Your task to perform on an android device: Go to calendar. Show me events next week Image 0: 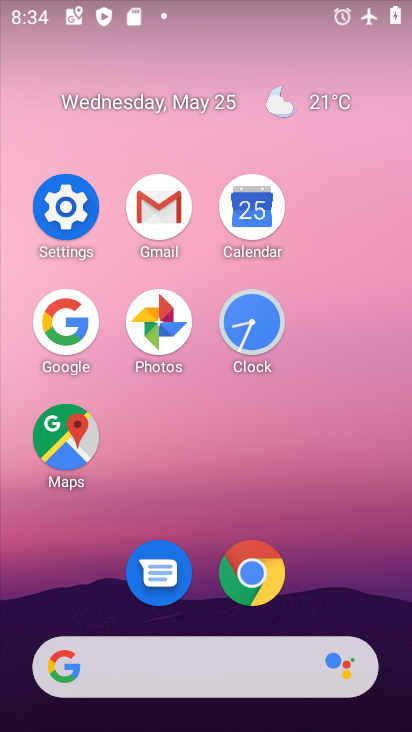
Step 0: click (261, 194)
Your task to perform on an android device: Go to calendar. Show me events next week Image 1: 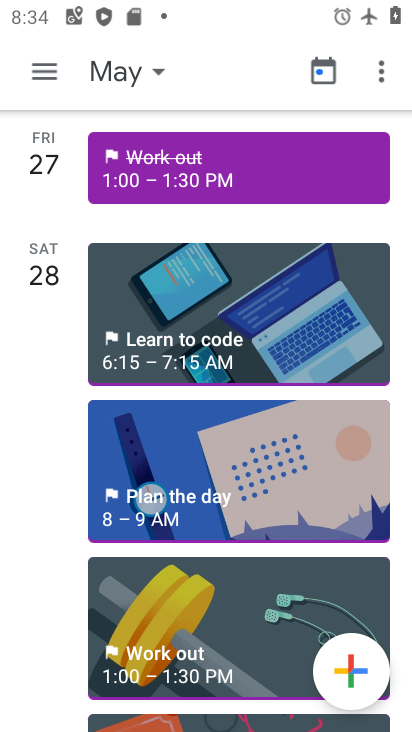
Step 1: click (63, 76)
Your task to perform on an android device: Go to calendar. Show me events next week Image 2: 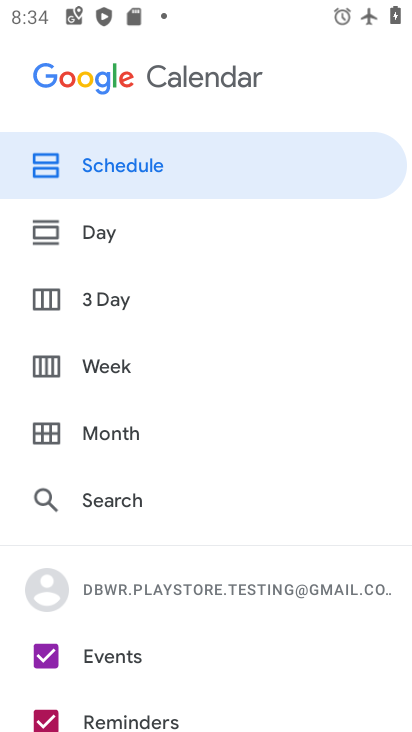
Step 2: click (161, 369)
Your task to perform on an android device: Go to calendar. Show me events next week Image 3: 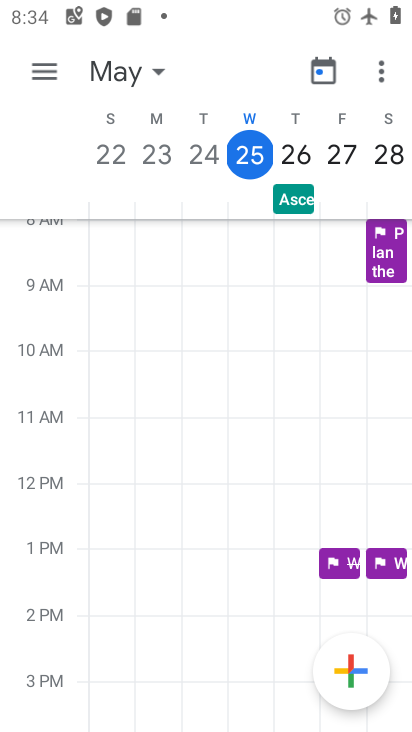
Step 3: task complete